Your task to perform on an android device: toggle pop-ups in chrome Image 0: 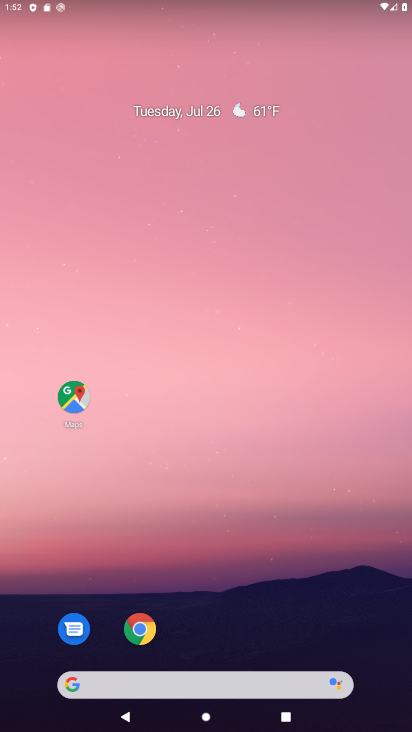
Step 0: click (138, 626)
Your task to perform on an android device: toggle pop-ups in chrome Image 1: 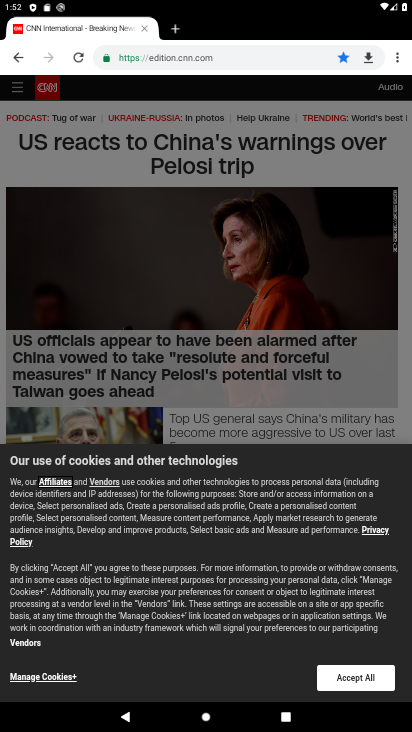
Step 1: click (394, 57)
Your task to perform on an android device: toggle pop-ups in chrome Image 2: 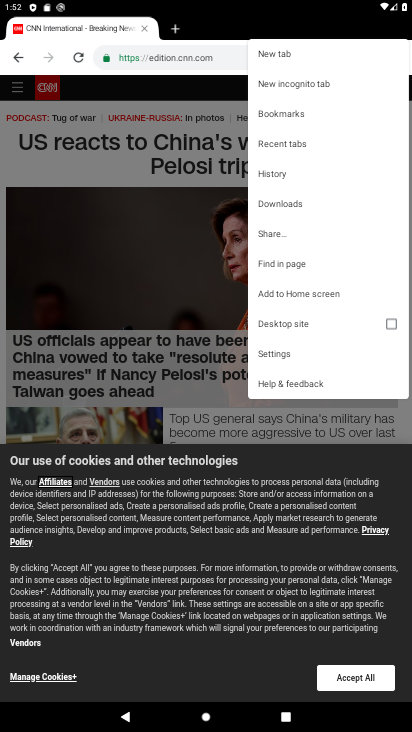
Step 2: click (276, 351)
Your task to perform on an android device: toggle pop-ups in chrome Image 3: 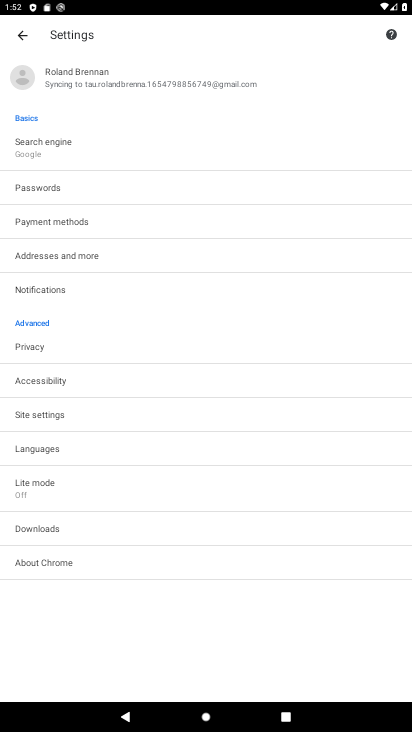
Step 3: click (45, 414)
Your task to perform on an android device: toggle pop-ups in chrome Image 4: 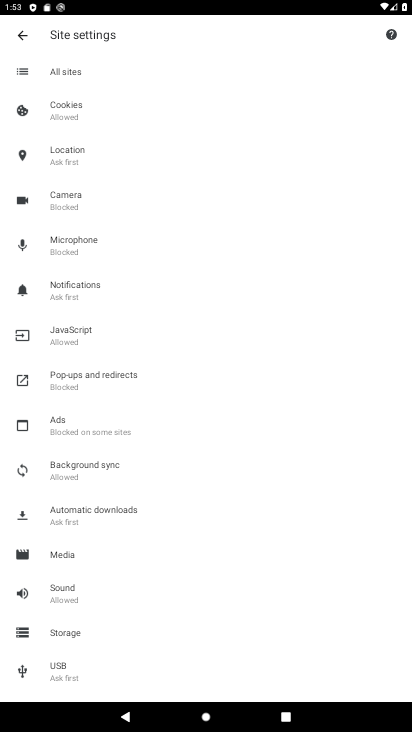
Step 4: click (100, 369)
Your task to perform on an android device: toggle pop-ups in chrome Image 5: 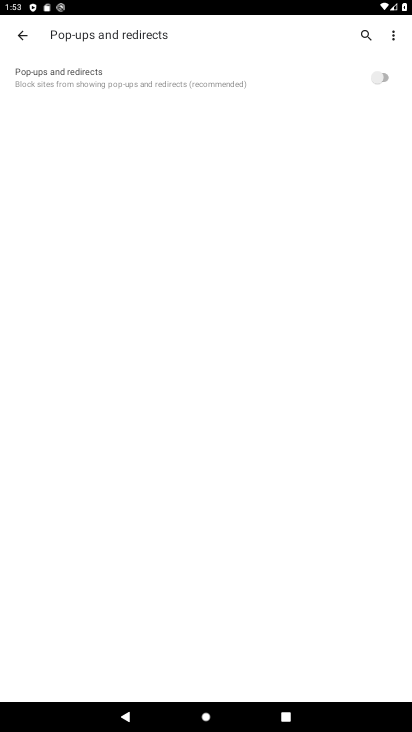
Step 5: click (373, 77)
Your task to perform on an android device: toggle pop-ups in chrome Image 6: 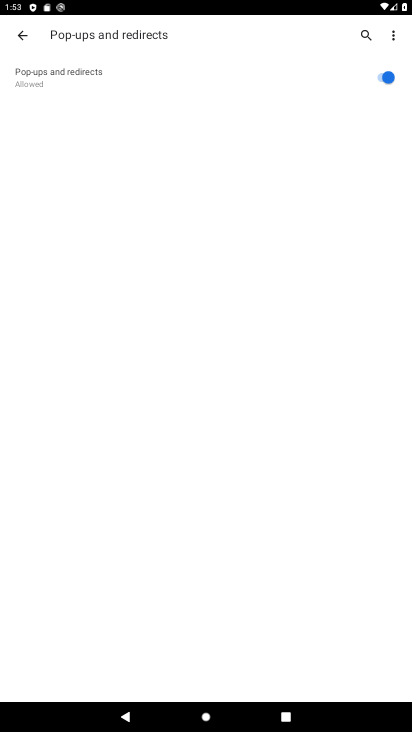
Step 6: task complete